Your task to perform on an android device: toggle javascript in the chrome app Image 0: 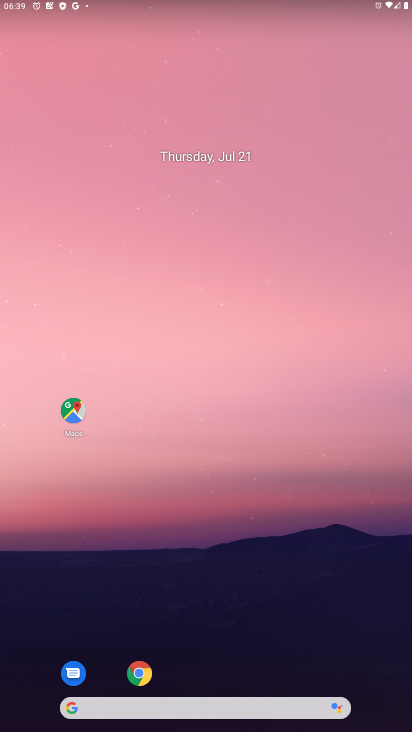
Step 0: click (131, 667)
Your task to perform on an android device: toggle javascript in the chrome app Image 1: 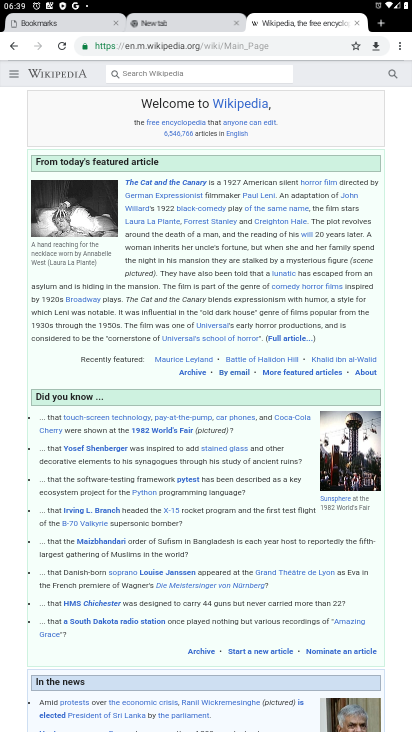
Step 1: click (398, 41)
Your task to perform on an android device: toggle javascript in the chrome app Image 2: 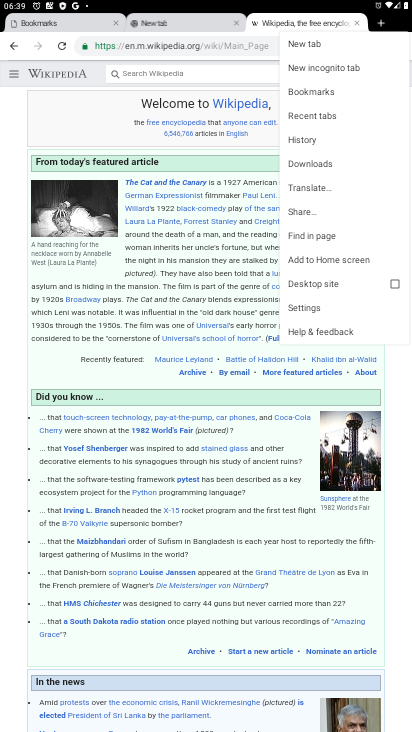
Step 2: click (312, 306)
Your task to perform on an android device: toggle javascript in the chrome app Image 3: 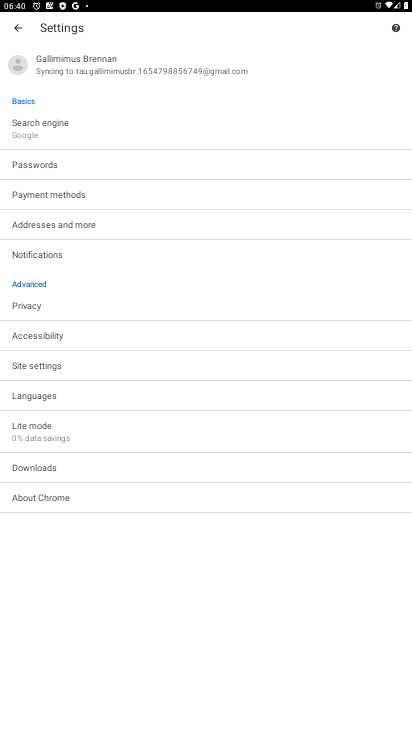
Step 3: click (90, 357)
Your task to perform on an android device: toggle javascript in the chrome app Image 4: 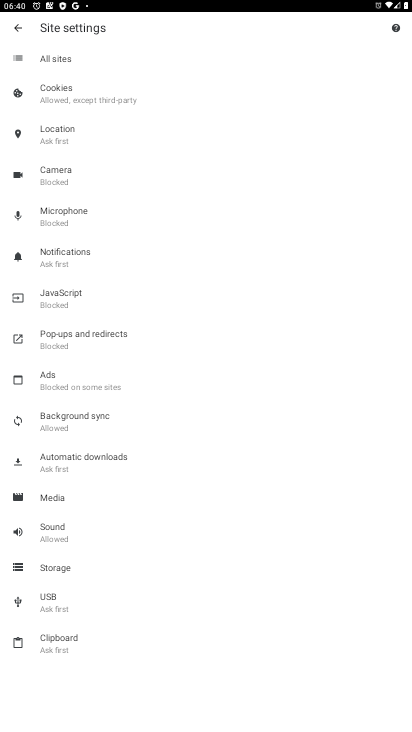
Step 4: click (59, 291)
Your task to perform on an android device: toggle javascript in the chrome app Image 5: 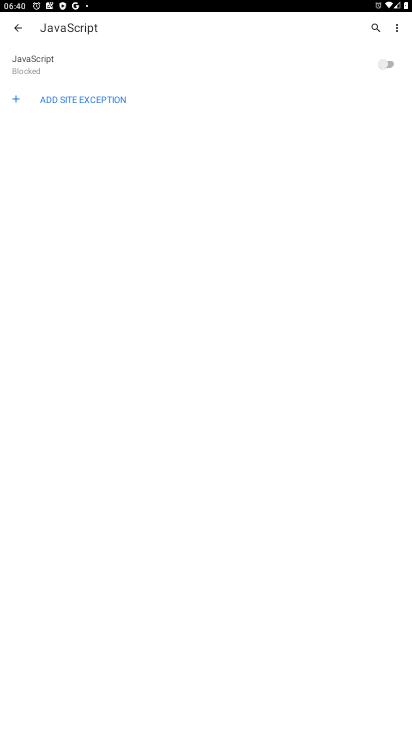
Step 5: click (385, 65)
Your task to perform on an android device: toggle javascript in the chrome app Image 6: 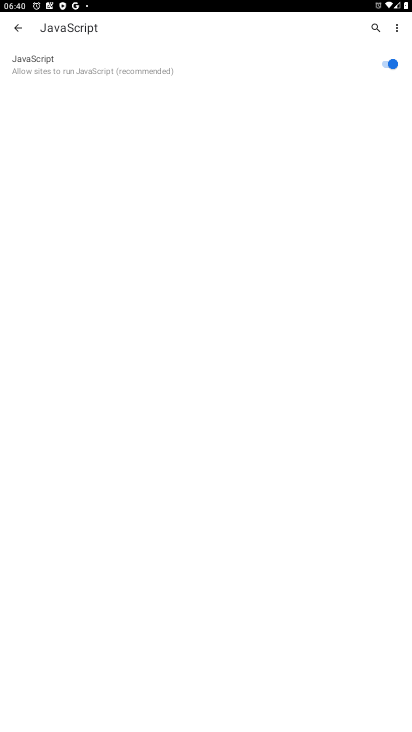
Step 6: task complete